Your task to perform on an android device: change the upload size in google photos Image 0: 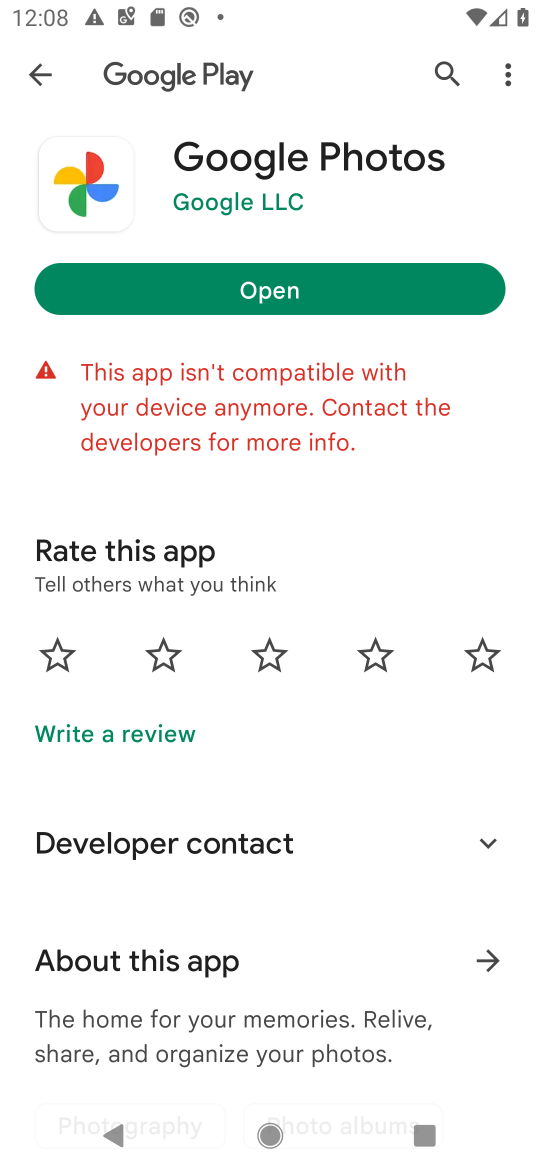
Step 0: click (281, 295)
Your task to perform on an android device: change the upload size in google photos Image 1: 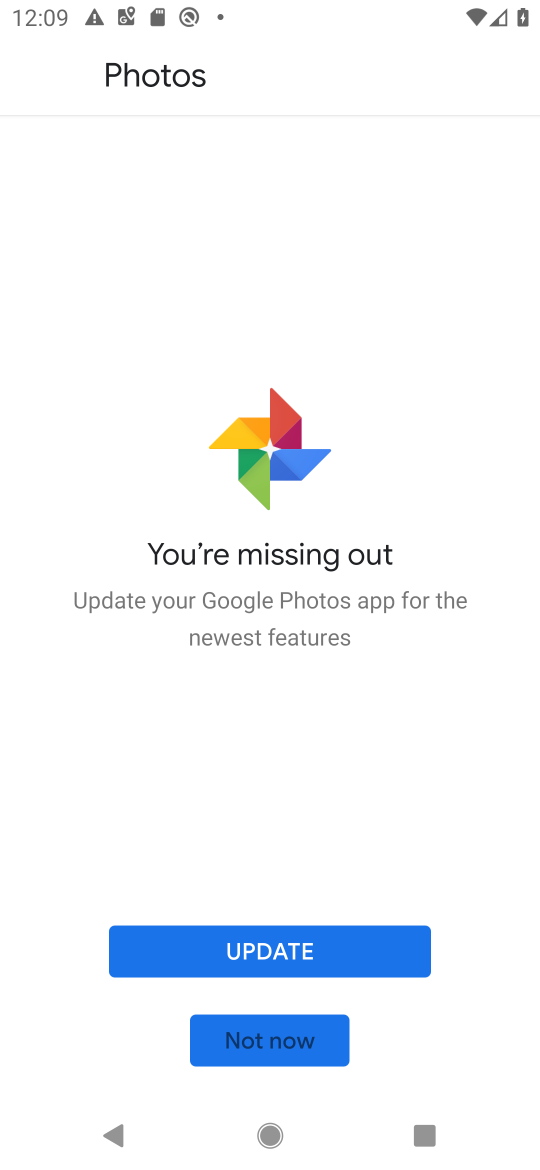
Step 1: click (239, 1050)
Your task to perform on an android device: change the upload size in google photos Image 2: 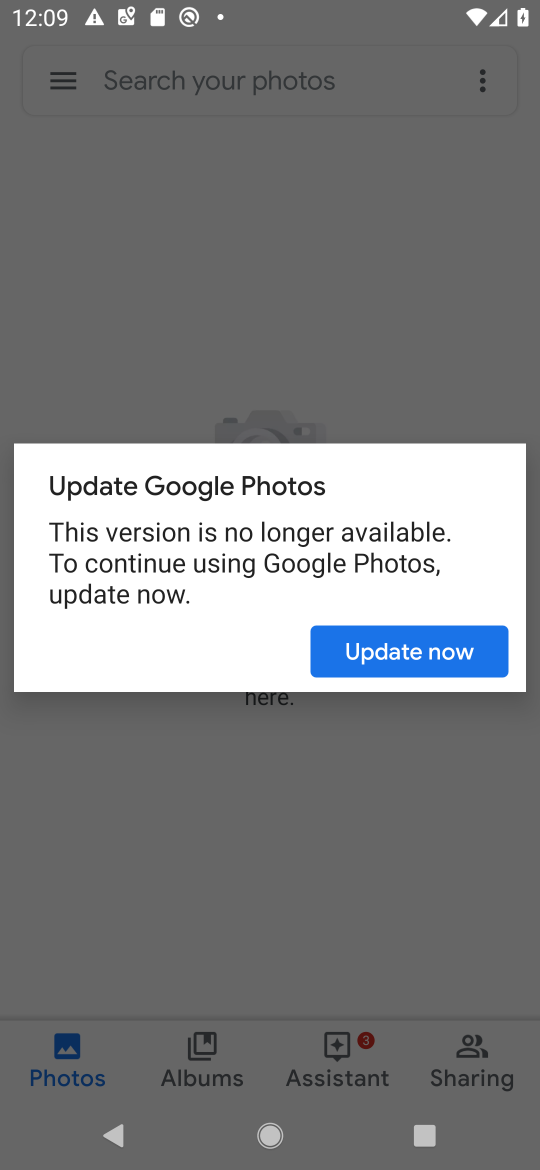
Step 2: task complete